Your task to perform on an android device: open device folders in google photos Image 0: 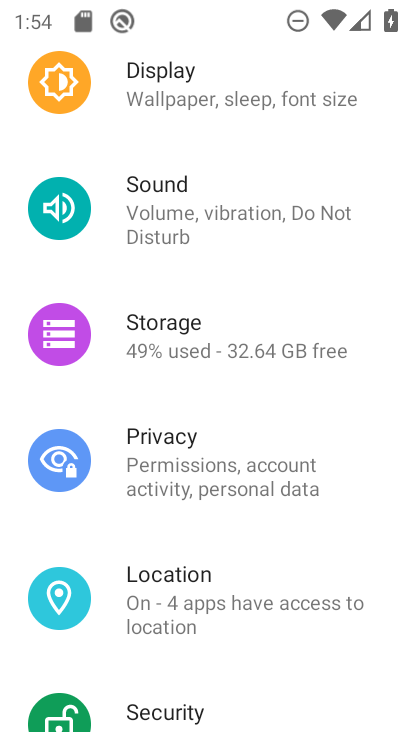
Step 0: press home button
Your task to perform on an android device: open device folders in google photos Image 1: 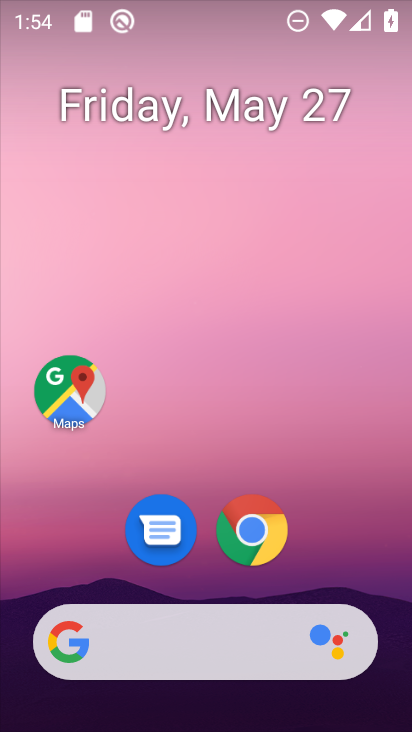
Step 1: drag from (127, 728) to (166, 25)
Your task to perform on an android device: open device folders in google photos Image 2: 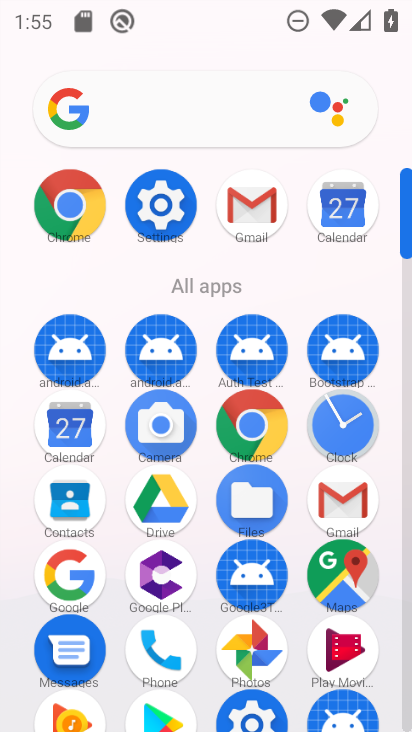
Step 2: click (241, 652)
Your task to perform on an android device: open device folders in google photos Image 3: 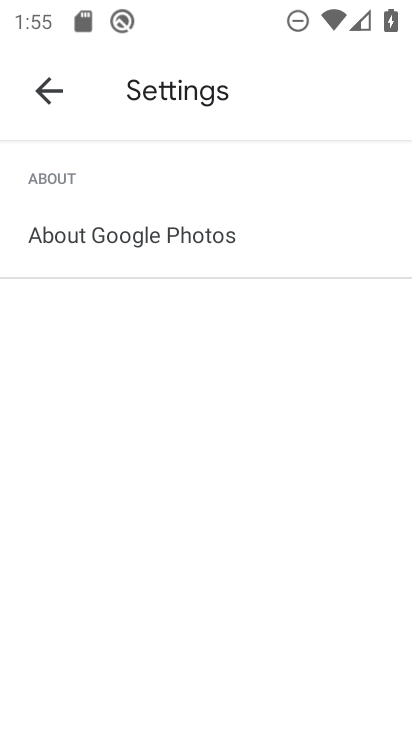
Step 3: click (52, 92)
Your task to perform on an android device: open device folders in google photos Image 4: 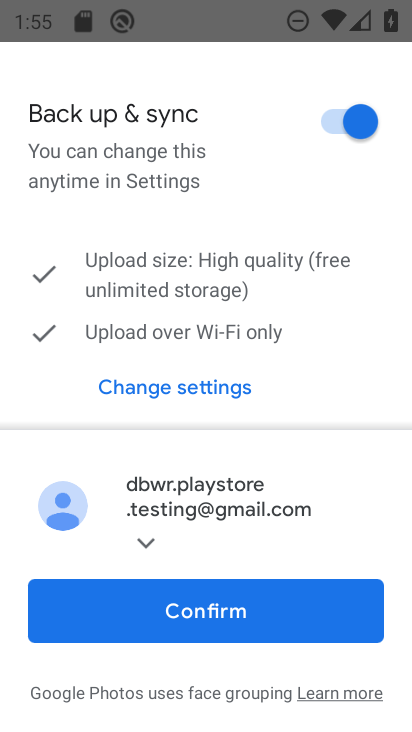
Step 4: click (330, 633)
Your task to perform on an android device: open device folders in google photos Image 5: 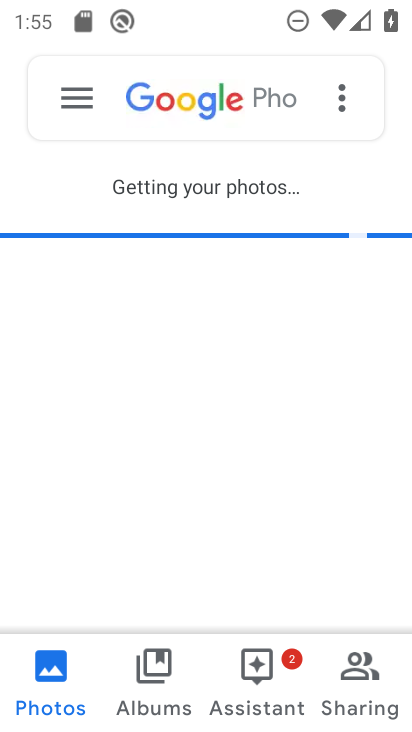
Step 5: click (75, 108)
Your task to perform on an android device: open device folders in google photos Image 6: 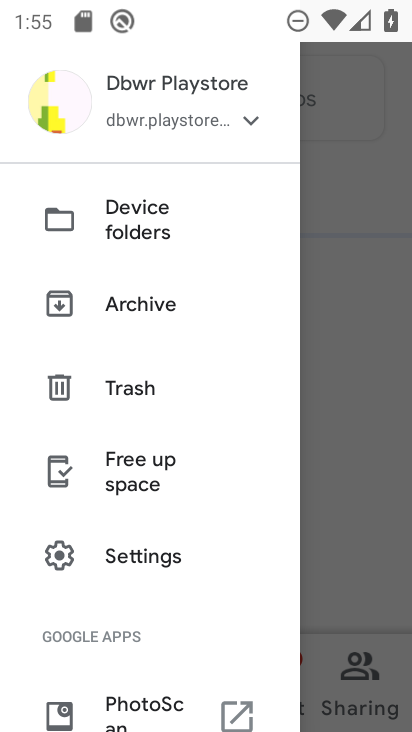
Step 6: click (190, 220)
Your task to perform on an android device: open device folders in google photos Image 7: 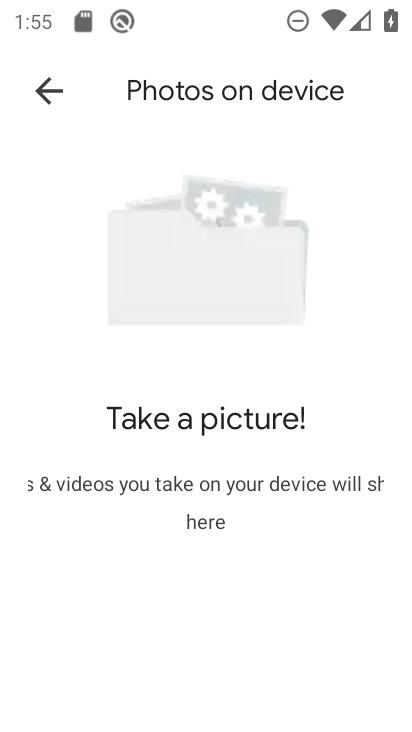
Step 7: task complete